Your task to perform on an android device: turn off translation in the chrome app Image 0: 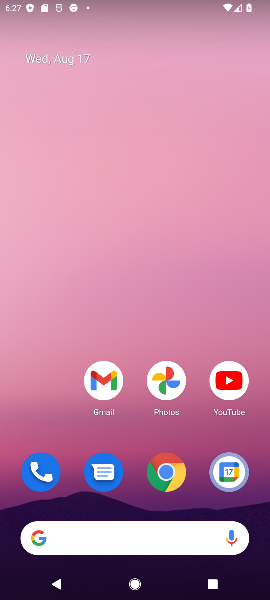
Step 0: click (168, 473)
Your task to perform on an android device: turn off translation in the chrome app Image 1: 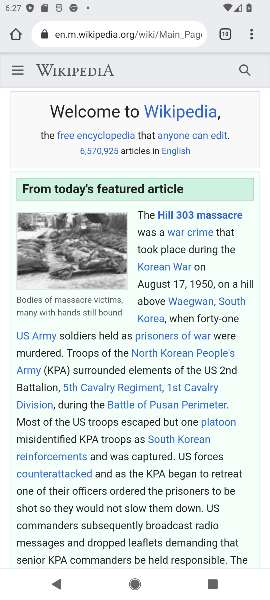
Step 1: click (250, 30)
Your task to perform on an android device: turn off translation in the chrome app Image 2: 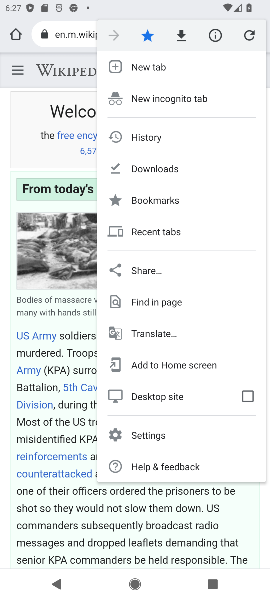
Step 2: click (155, 434)
Your task to perform on an android device: turn off translation in the chrome app Image 3: 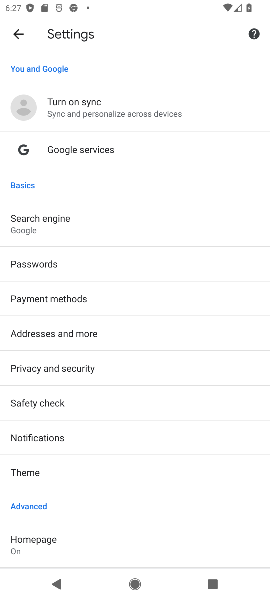
Step 3: drag from (87, 479) to (93, 191)
Your task to perform on an android device: turn off translation in the chrome app Image 4: 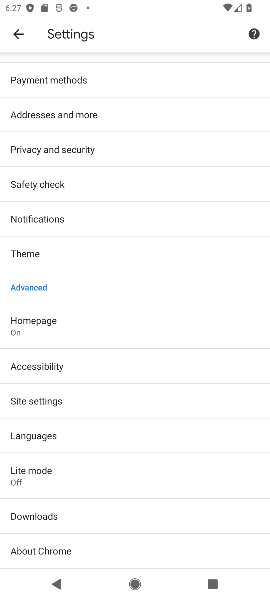
Step 4: click (52, 442)
Your task to perform on an android device: turn off translation in the chrome app Image 5: 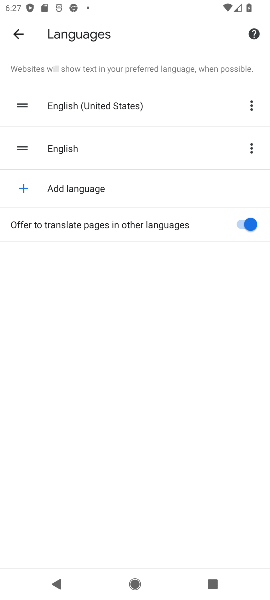
Step 5: click (244, 224)
Your task to perform on an android device: turn off translation in the chrome app Image 6: 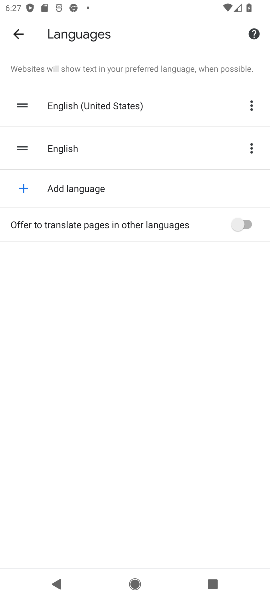
Step 6: task complete